Your task to perform on an android device: snooze an email in the gmail app Image 0: 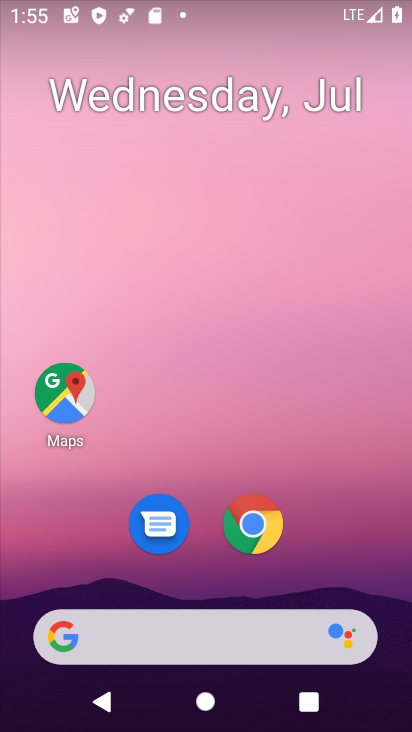
Step 0: drag from (327, 525) to (340, 49)
Your task to perform on an android device: snooze an email in the gmail app Image 1: 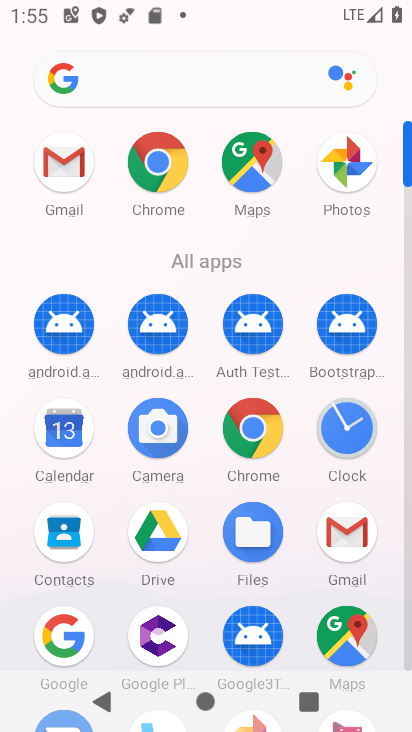
Step 1: click (64, 158)
Your task to perform on an android device: snooze an email in the gmail app Image 2: 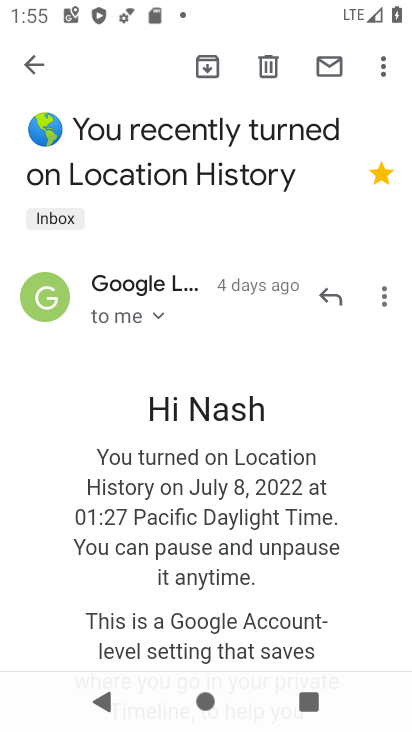
Step 2: click (36, 57)
Your task to perform on an android device: snooze an email in the gmail app Image 3: 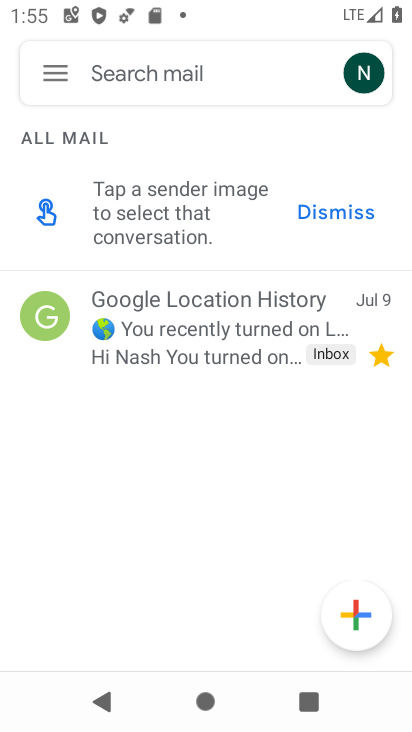
Step 3: click (254, 327)
Your task to perform on an android device: snooze an email in the gmail app Image 4: 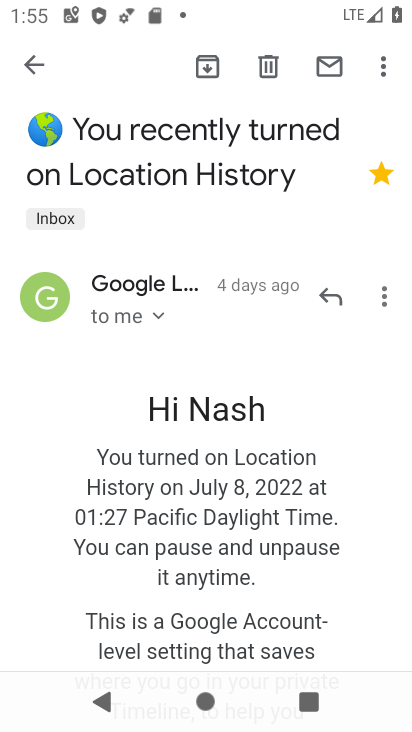
Step 4: click (377, 70)
Your task to perform on an android device: snooze an email in the gmail app Image 5: 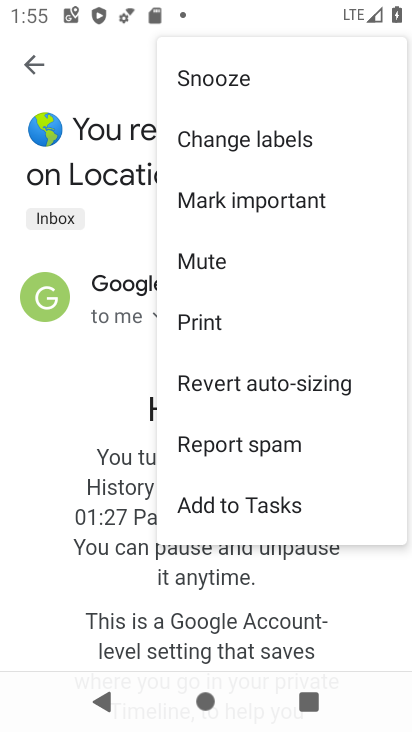
Step 5: click (266, 72)
Your task to perform on an android device: snooze an email in the gmail app Image 6: 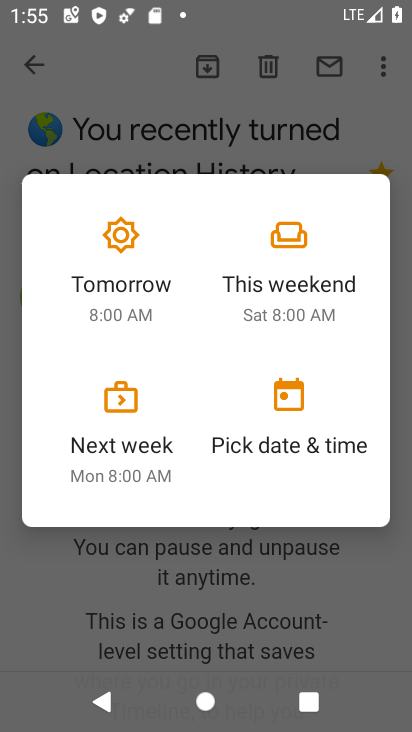
Step 6: click (157, 291)
Your task to perform on an android device: snooze an email in the gmail app Image 7: 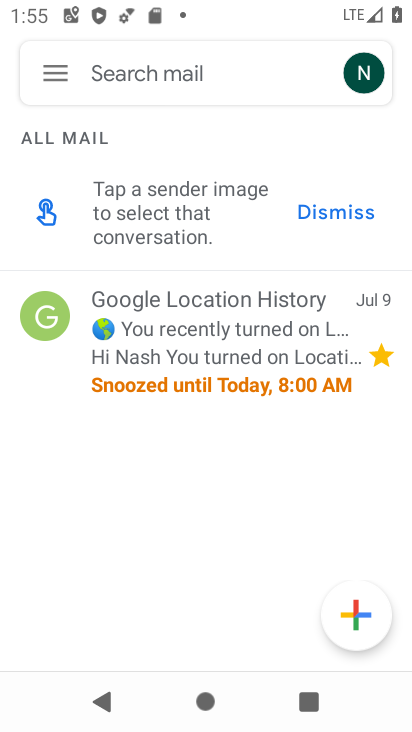
Step 7: task complete